Your task to perform on an android device: Find coffee shops on Maps Image 0: 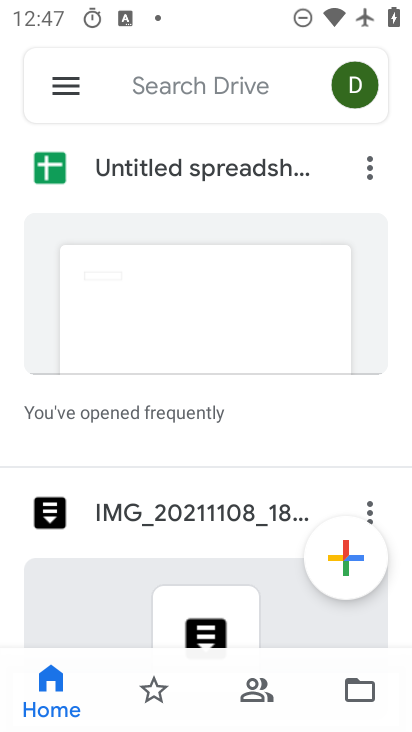
Step 0: press home button
Your task to perform on an android device: Find coffee shops on Maps Image 1: 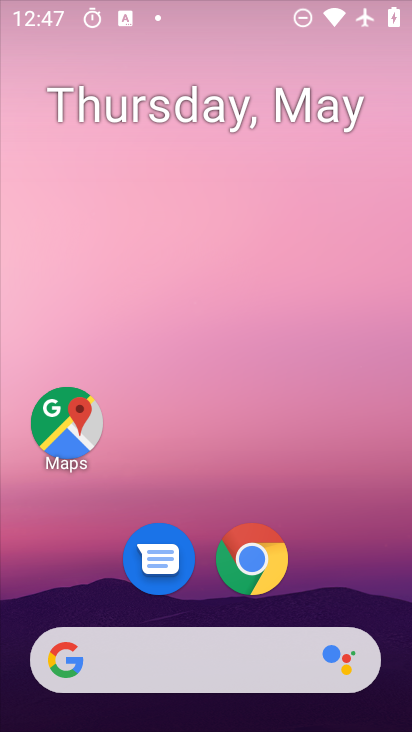
Step 1: drag from (225, 616) to (262, 140)
Your task to perform on an android device: Find coffee shops on Maps Image 2: 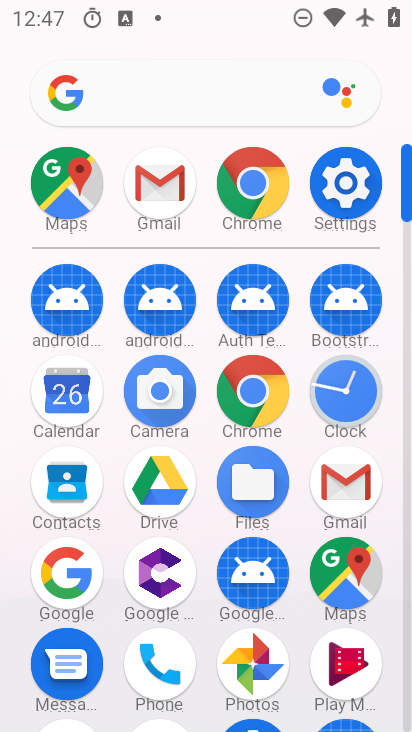
Step 2: click (360, 576)
Your task to perform on an android device: Find coffee shops on Maps Image 3: 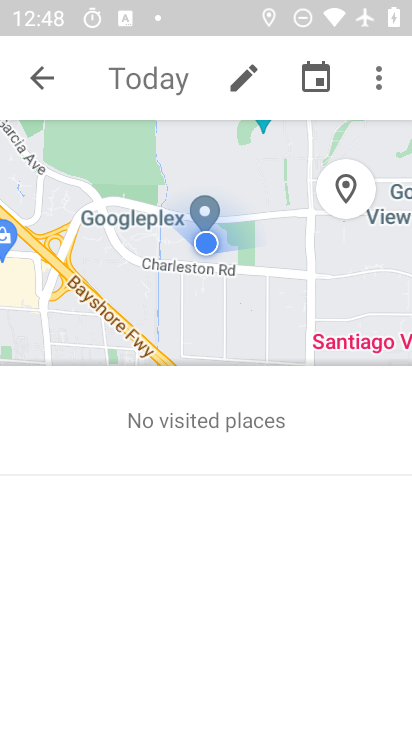
Step 3: press back button
Your task to perform on an android device: Find coffee shops on Maps Image 4: 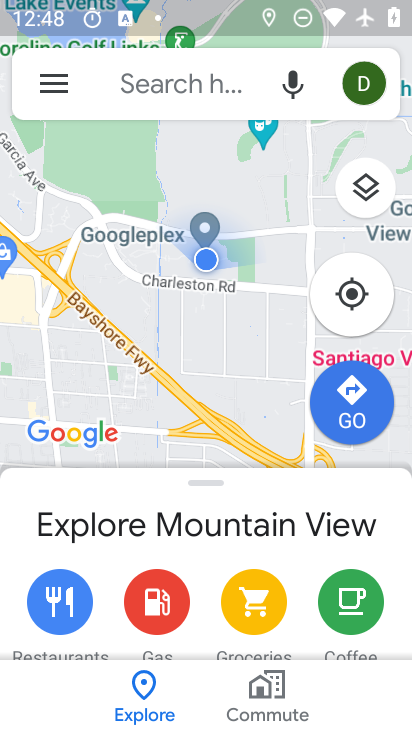
Step 4: click (137, 99)
Your task to perform on an android device: Find coffee shops on Maps Image 5: 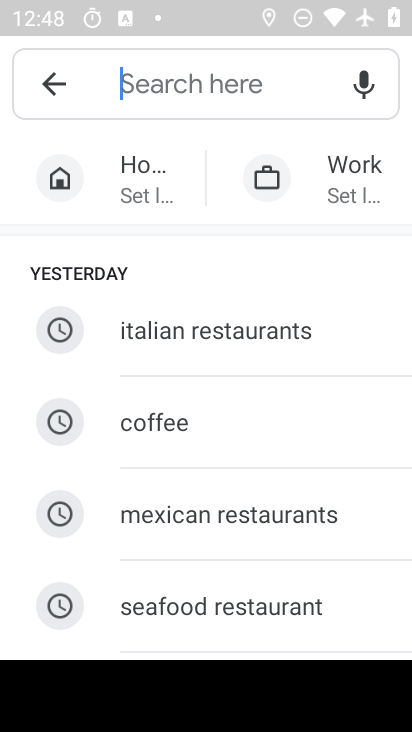
Step 5: drag from (228, 540) to (247, 321)
Your task to perform on an android device: Find coffee shops on Maps Image 6: 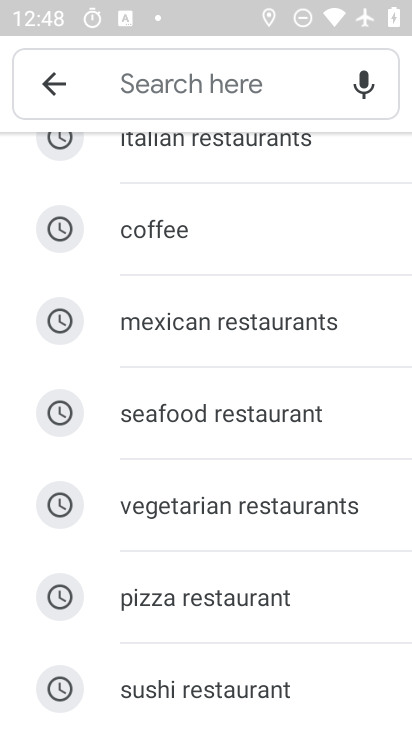
Step 6: drag from (217, 569) to (253, 353)
Your task to perform on an android device: Find coffee shops on Maps Image 7: 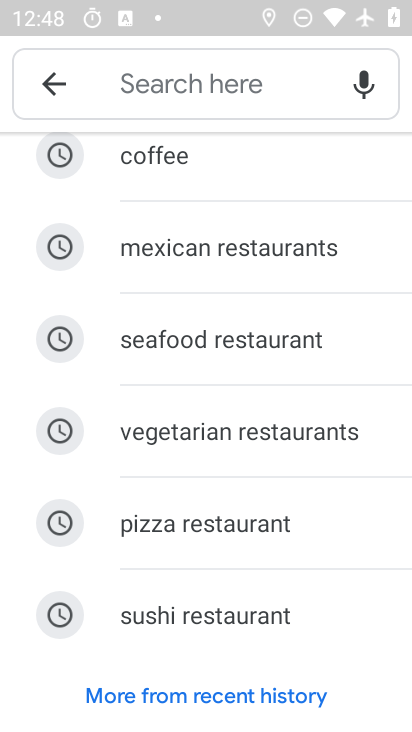
Step 7: drag from (215, 499) to (218, 298)
Your task to perform on an android device: Find coffee shops on Maps Image 8: 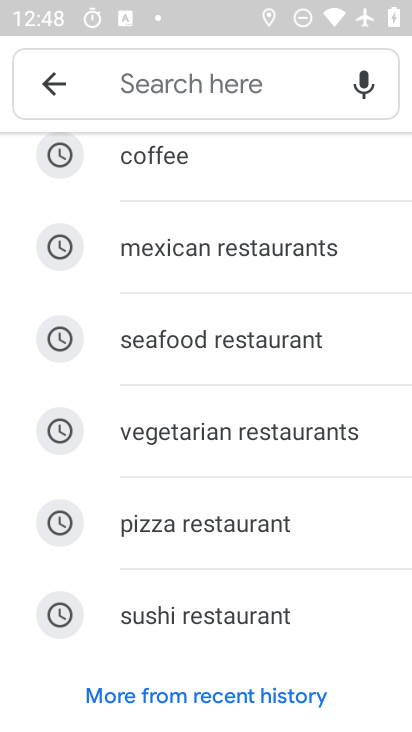
Step 8: click (219, 91)
Your task to perform on an android device: Find coffee shops on Maps Image 9: 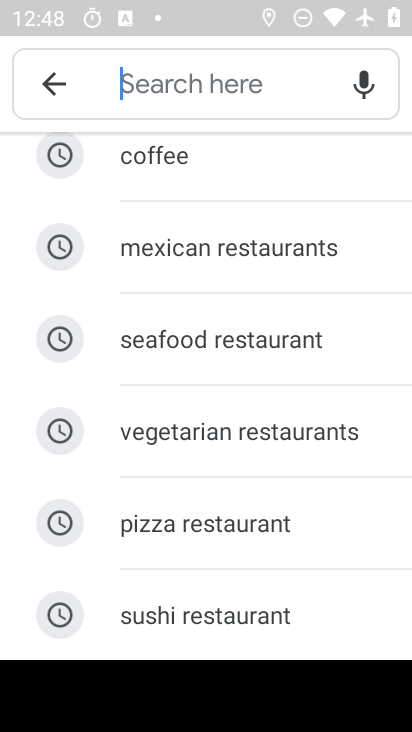
Step 9: drag from (230, 450) to (241, 259)
Your task to perform on an android device: Find coffee shops on Maps Image 10: 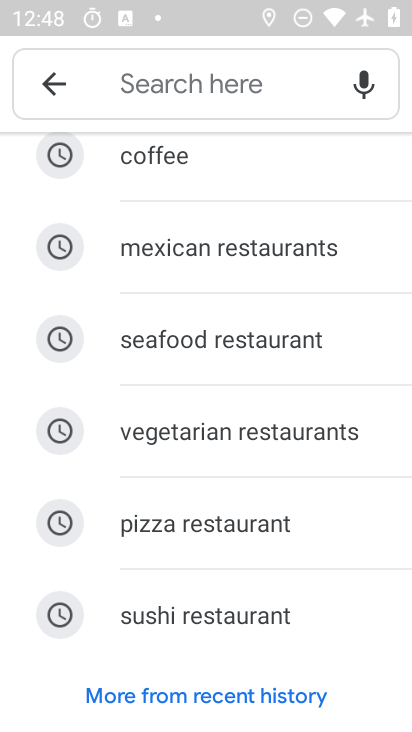
Step 10: click (226, 79)
Your task to perform on an android device: Find coffee shops on Maps Image 11: 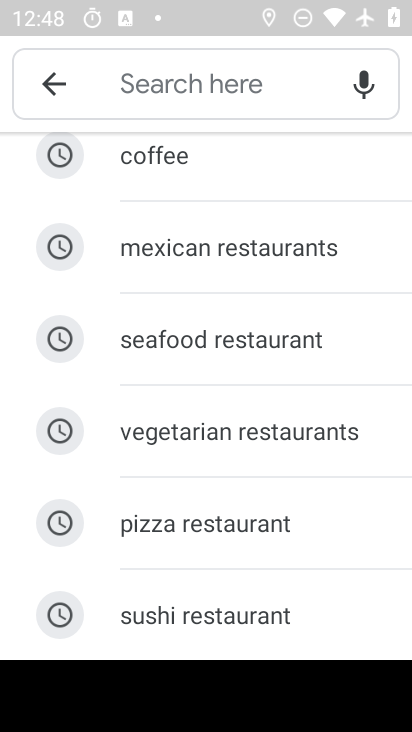
Step 11: type "coffee shops"
Your task to perform on an android device: Find coffee shops on Maps Image 12: 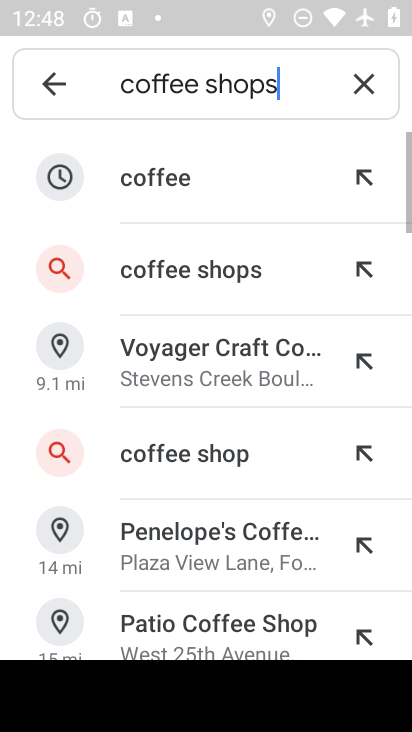
Step 12: click (174, 184)
Your task to perform on an android device: Find coffee shops on Maps Image 13: 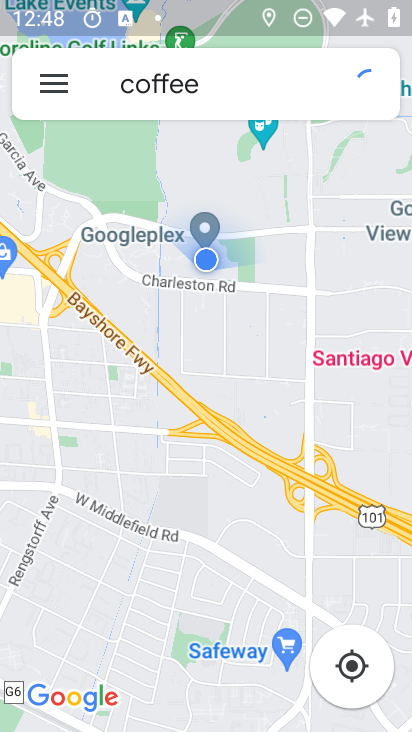
Step 13: task complete